Your task to perform on an android device: turn on notifications settings in the gmail app Image 0: 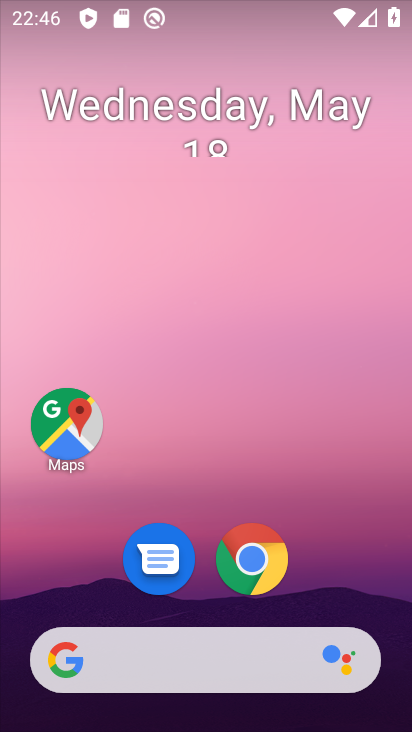
Step 0: click (366, 592)
Your task to perform on an android device: turn on notifications settings in the gmail app Image 1: 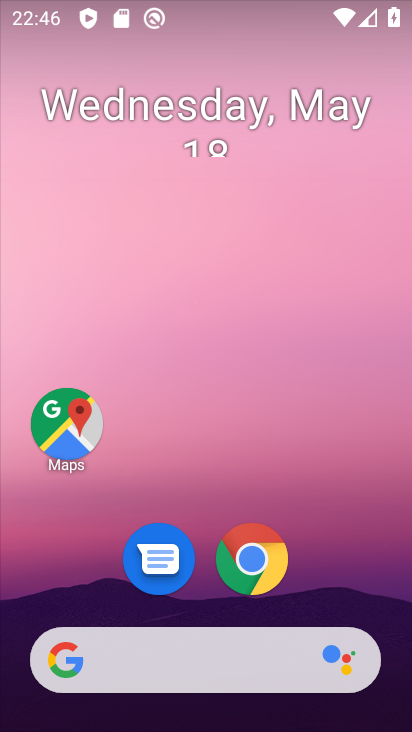
Step 1: drag from (312, 576) to (313, 11)
Your task to perform on an android device: turn on notifications settings in the gmail app Image 2: 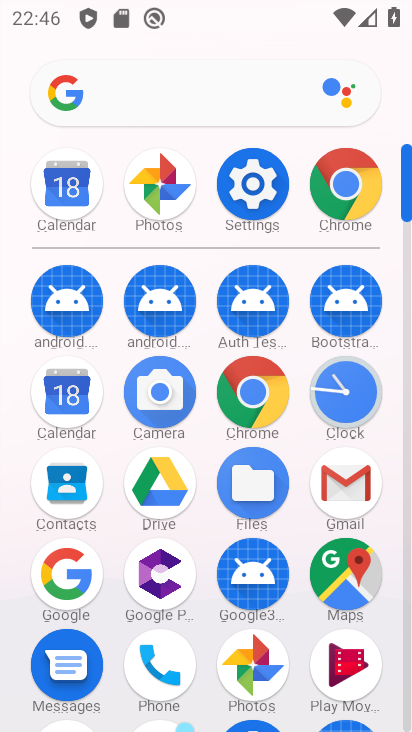
Step 2: click (345, 495)
Your task to perform on an android device: turn on notifications settings in the gmail app Image 3: 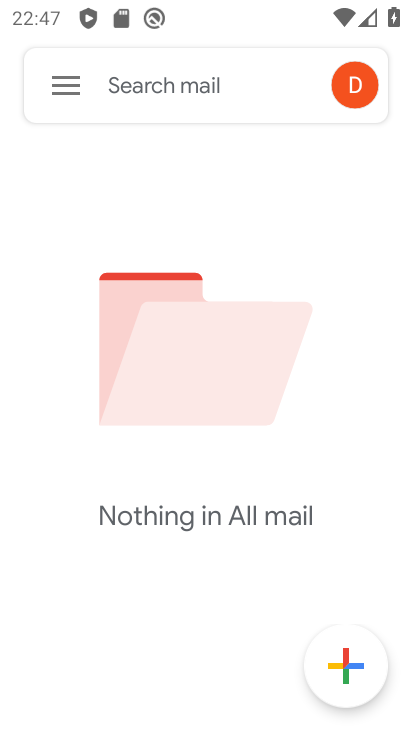
Step 3: click (70, 87)
Your task to perform on an android device: turn on notifications settings in the gmail app Image 4: 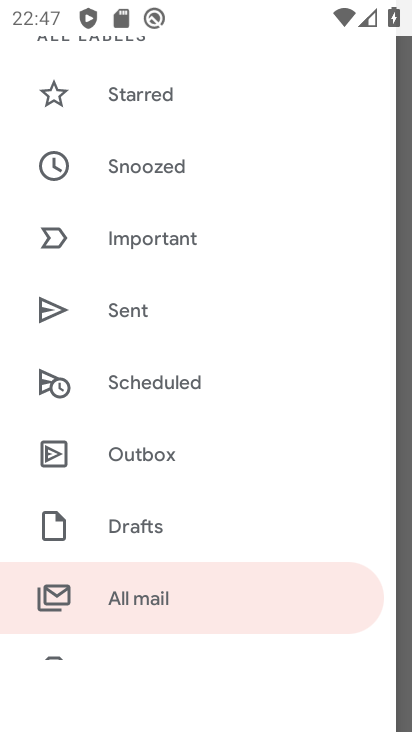
Step 4: drag from (189, 499) to (189, 148)
Your task to perform on an android device: turn on notifications settings in the gmail app Image 5: 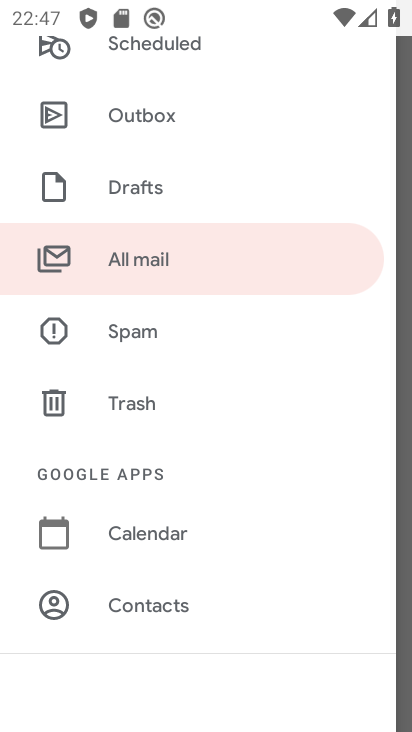
Step 5: drag from (179, 563) to (215, 301)
Your task to perform on an android device: turn on notifications settings in the gmail app Image 6: 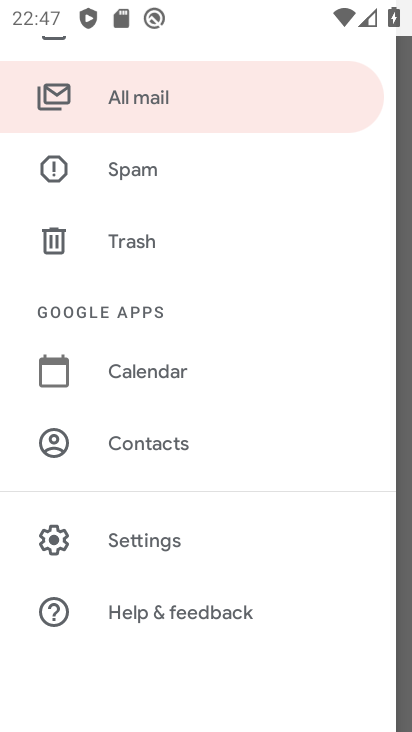
Step 6: click (139, 556)
Your task to perform on an android device: turn on notifications settings in the gmail app Image 7: 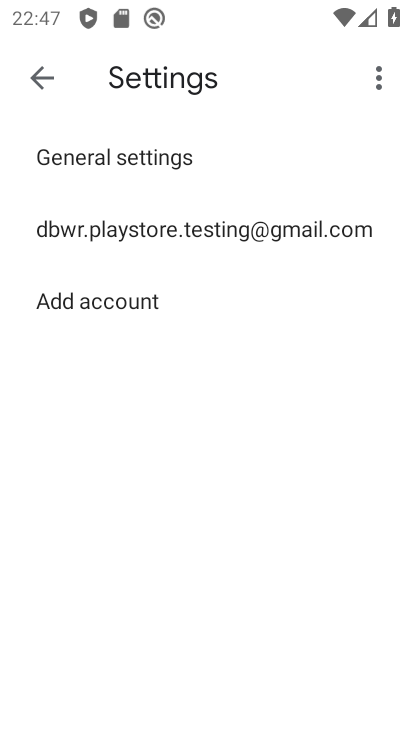
Step 7: click (212, 235)
Your task to perform on an android device: turn on notifications settings in the gmail app Image 8: 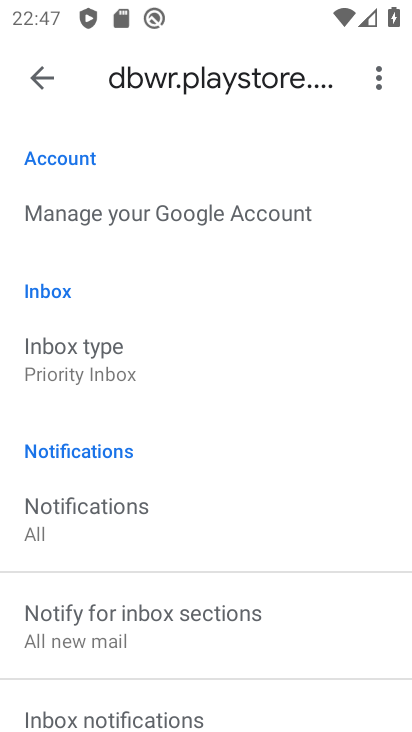
Step 8: click (96, 538)
Your task to perform on an android device: turn on notifications settings in the gmail app Image 9: 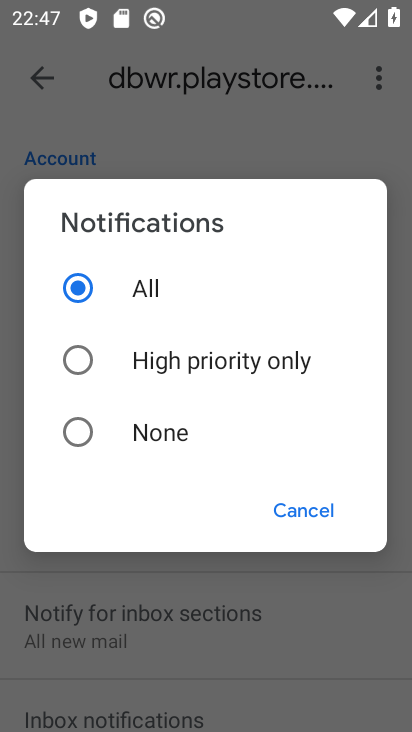
Step 9: task complete